Your task to perform on an android device: Turn off the flashlight Image 0: 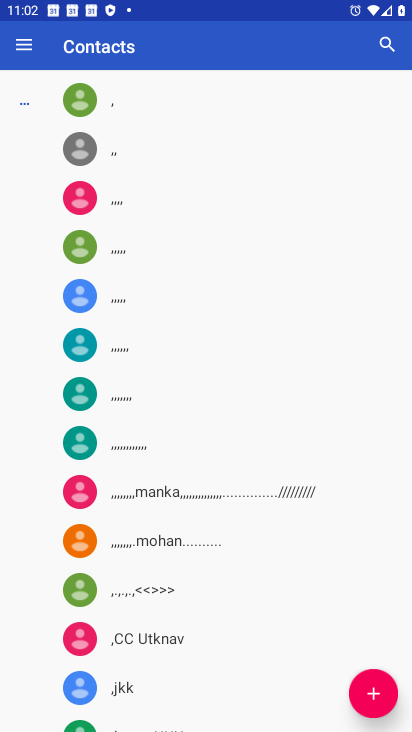
Step 0: press home button
Your task to perform on an android device: Turn off the flashlight Image 1: 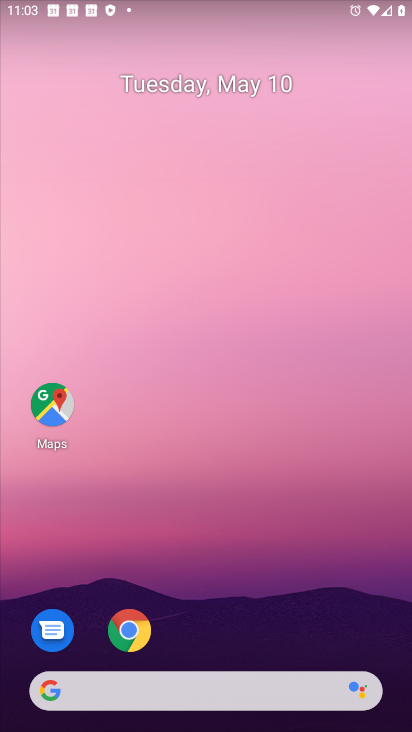
Step 1: task complete